Your task to perform on an android device: Open calendar and show me the first week of next month Image 0: 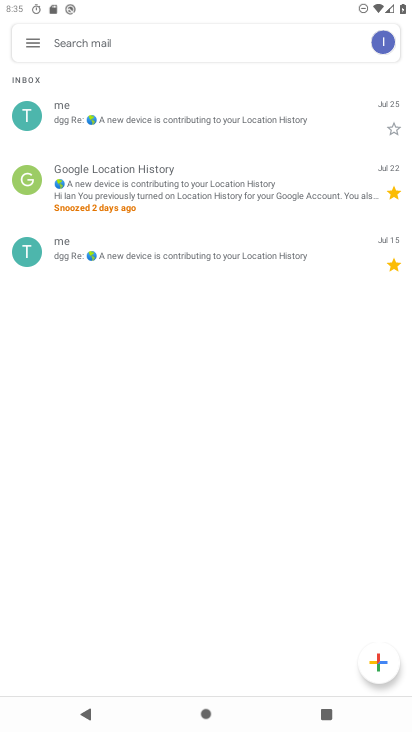
Step 0: press home button
Your task to perform on an android device: Open calendar and show me the first week of next month Image 1: 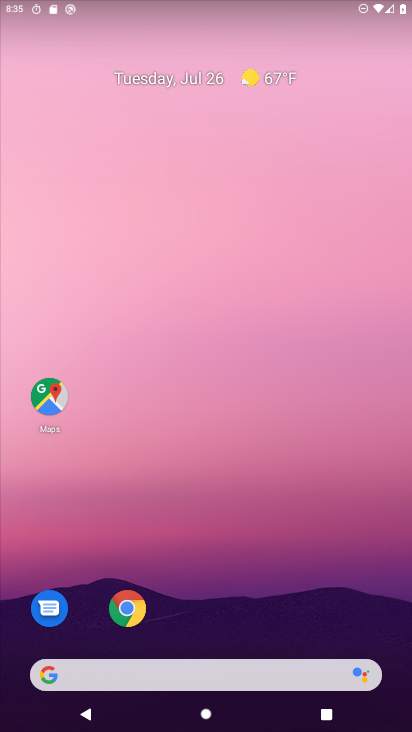
Step 1: drag from (245, 635) to (260, 31)
Your task to perform on an android device: Open calendar and show me the first week of next month Image 2: 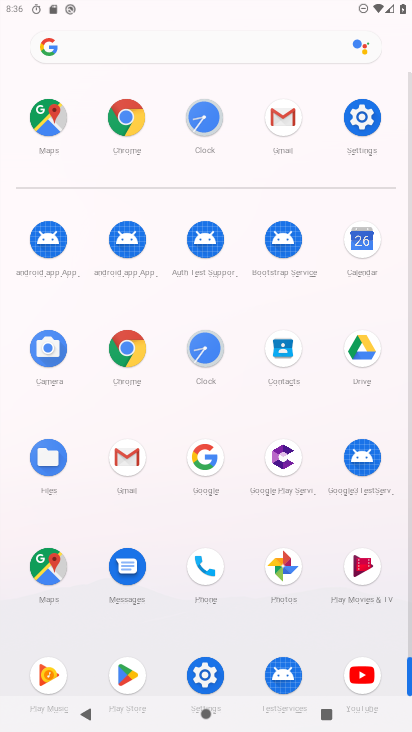
Step 2: click (374, 258)
Your task to perform on an android device: Open calendar and show me the first week of next month Image 3: 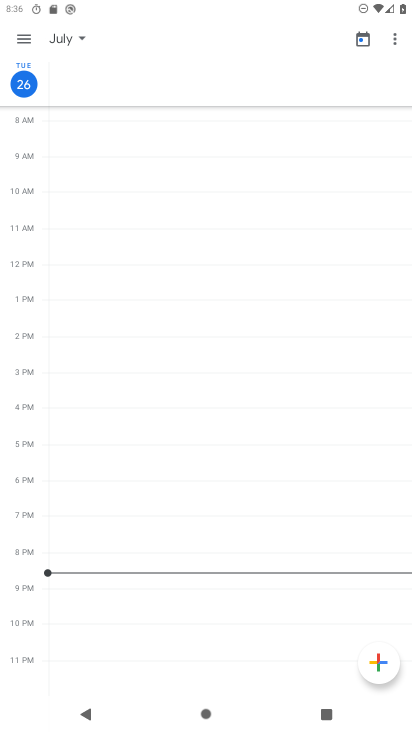
Step 3: click (25, 42)
Your task to perform on an android device: Open calendar and show me the first week of next month Image 4: 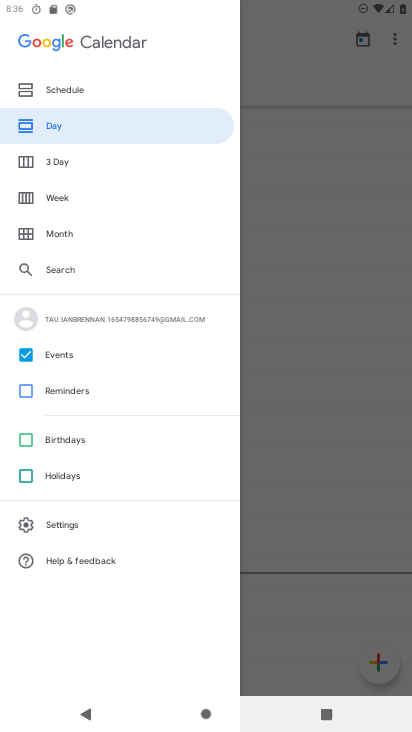
Step 4: click (63, 200)
Your task to perform on an android device: Open calendar and show me the first week of next month Image 5: 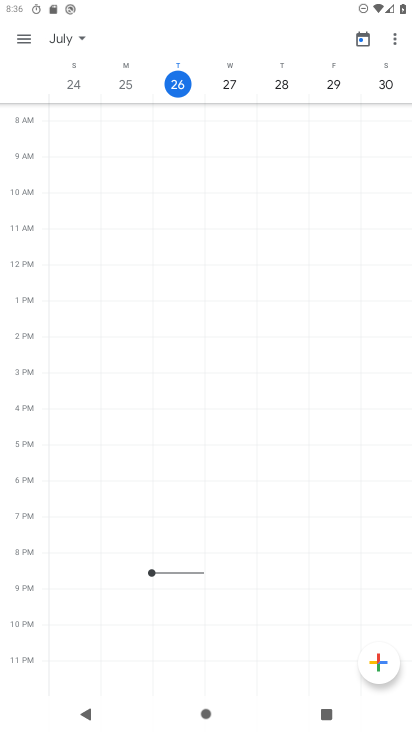
Step 5: task complete